Your task to perform on an android device: View the shopping cart on amazon. Search for energizer triple a on amazon, select the first entry, and add it to the cart. Image 0: 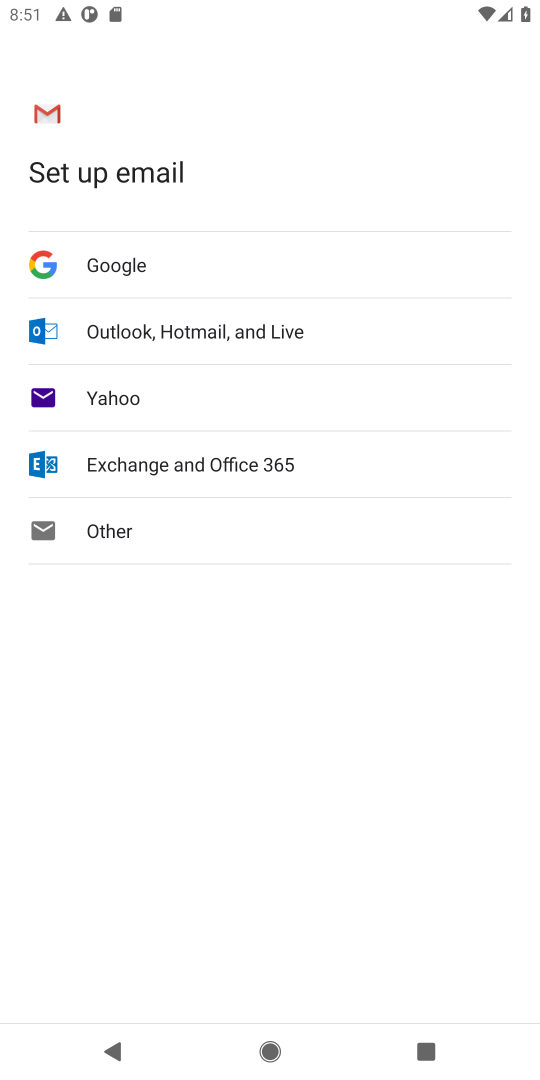
Step 0: press home button
Your task to perform on an android device: View the shopping cart on amazon. Search for energizer triple a on amazon, select the first entry, and add it to the cart. Image 1: 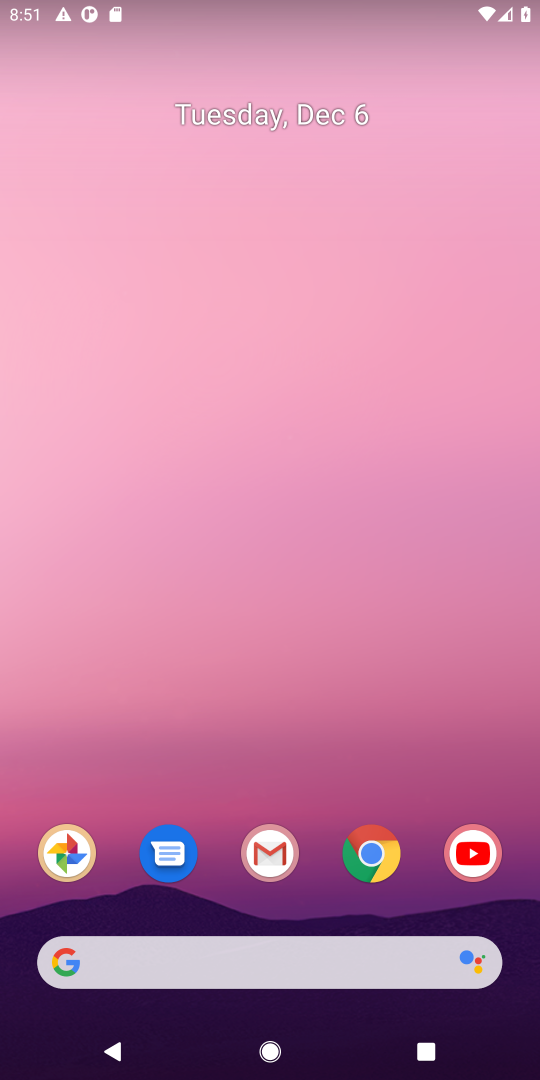
Step 1: drag from (316, 946) to (253, 239)
Your task to perform on an android device: View the shopping cart on amazon. Search for energizer triple a on amazon, select the first entry, and add it to the cart. Image 2: 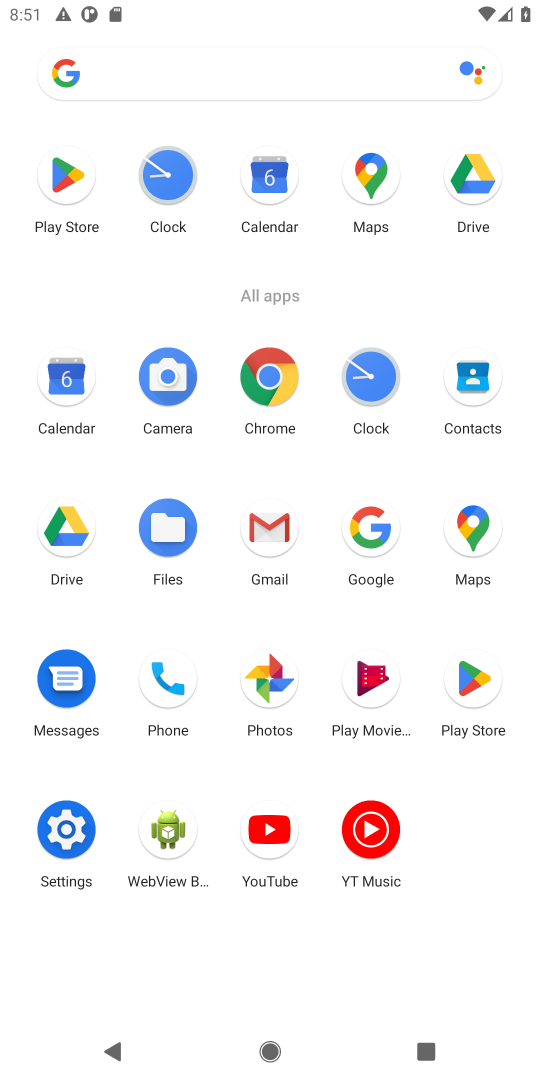
Step 2: click (382, 537)
Your task to perform on an android device: View the shopping cart on amazon. Search for energizer triple a on amazon, select the first entry, and add it to the cart. Image 3: 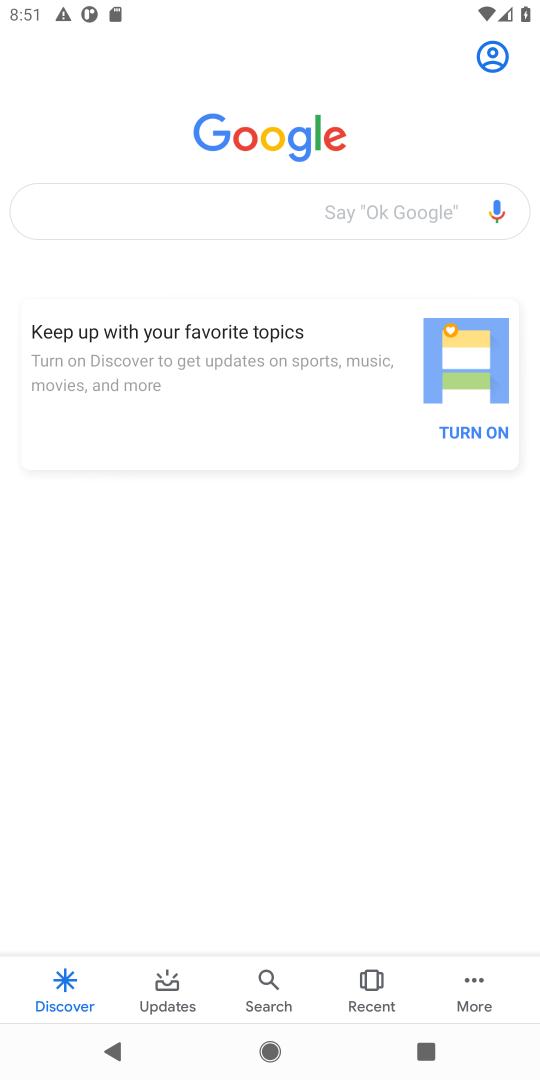
Step 3: click (183, 219)
Your task to perform on an android device: View the shopping cart on amazon. Search for energizer triple a on amazon, select the first entry, and add it to the cart. Image 4: 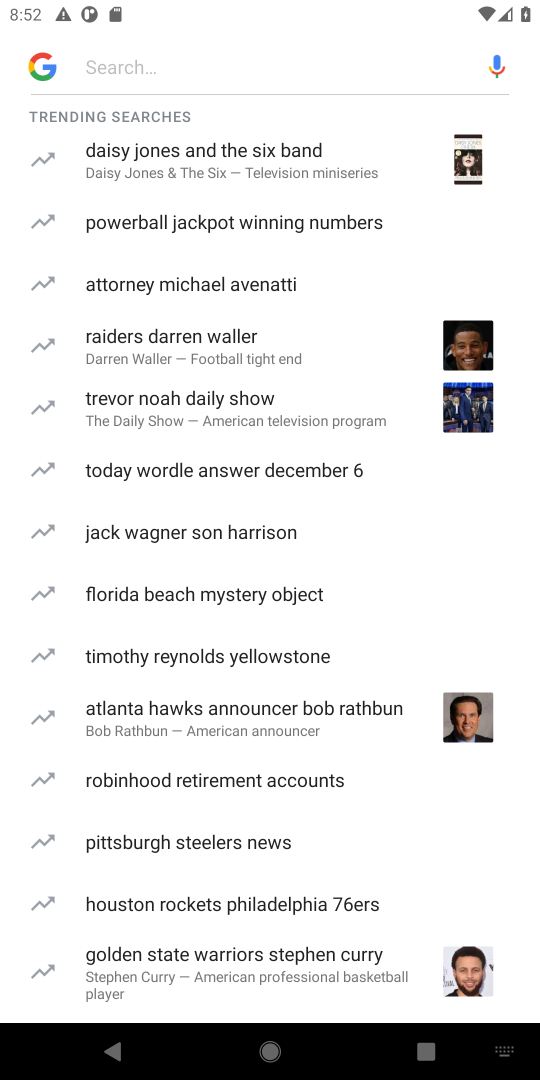
Step 4: type "amazon"
Your task to perform on an android device: View the shopping cart on amazon. Search for energizer triple a on amazon, select the first entry, and add it to the cart. Image 5: 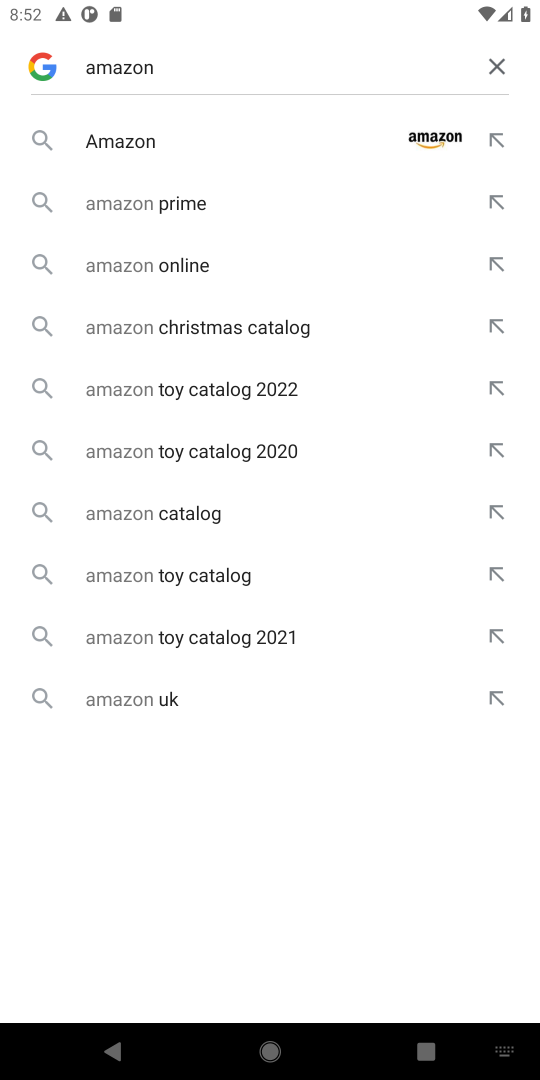
Step 5: click (438, 134)
Your task to perform on an android device: View the shopping cart on amazon. Search for energizer triple a on amazon, select the first entry, and add it to the cart. Image 6: 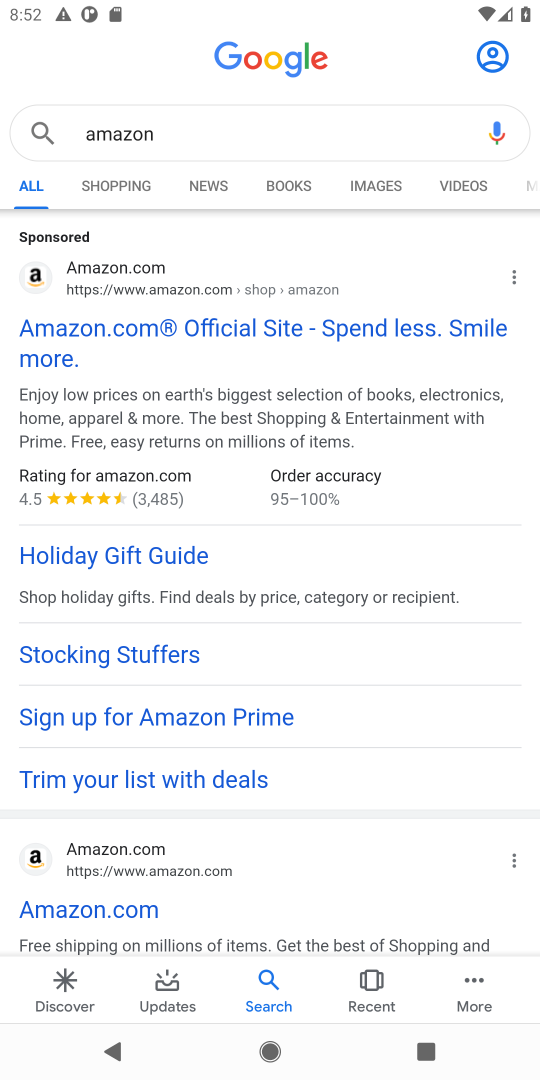
Step 6: click (98, 331)
Your task to perform on an android device: View the shopping cart on amazon. Search for energizer triple a on amazon, select the first entry, and add it to the cart. Image 7: 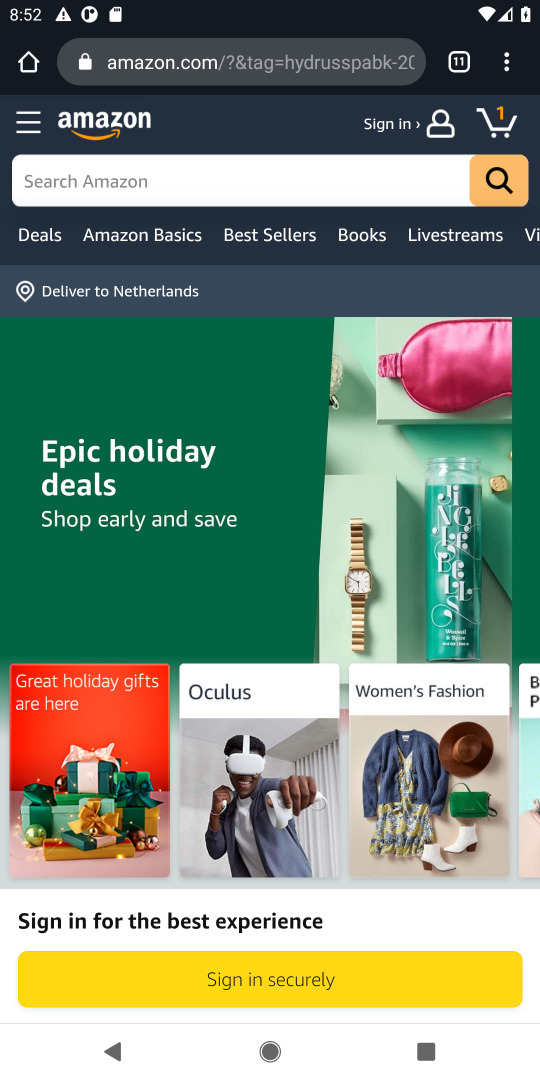
Step 7: click (73, 180)
Your task to perform on an android device: View the shopping cart on amazon. Search for energizer triple a on amazon, select the first entry, and add it to the cart. Image 8: 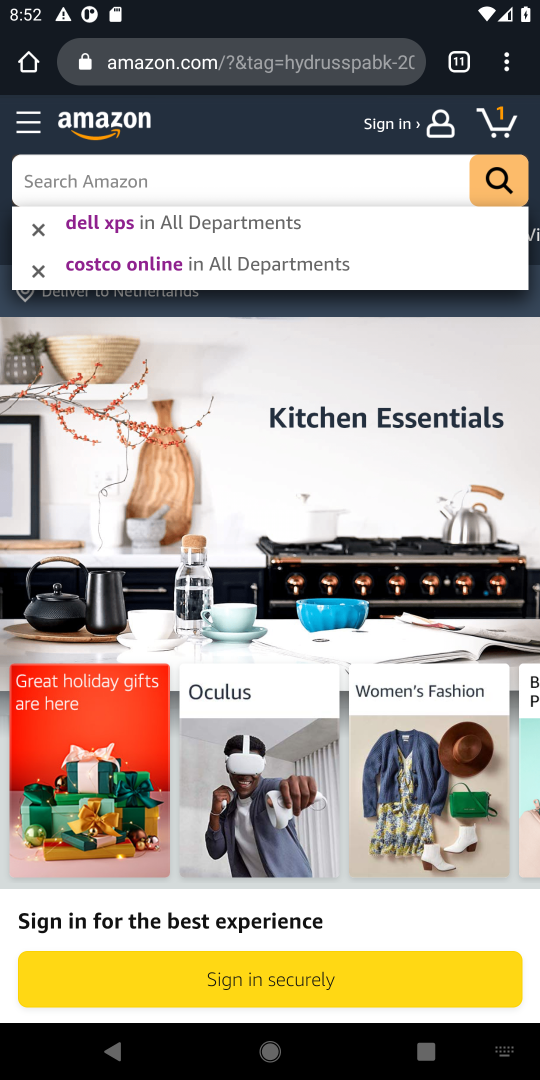
Step 8: type "energizer triple a"
Your task to perform on an android device: View the shopping cart on amazon. Search for energizer triple a on amazon, select the first entry, and add it to the cart. Image 9: 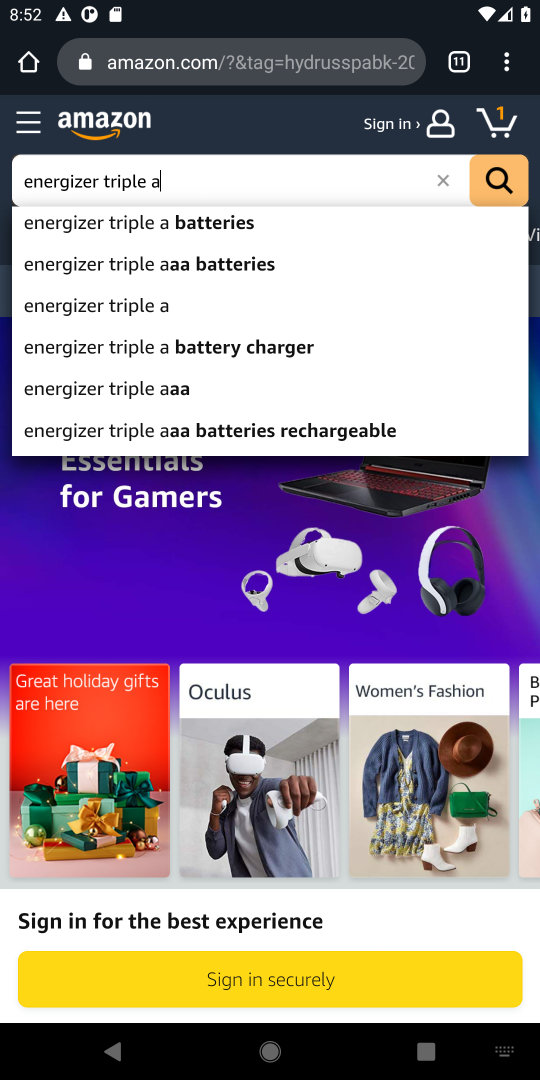
Step 9: click (498, 189)
Your task to perform on an android device: View the shopping cart on amazon. Search for energizer triple a on amazon, select the first entry, and add it to the cart. Image 10: 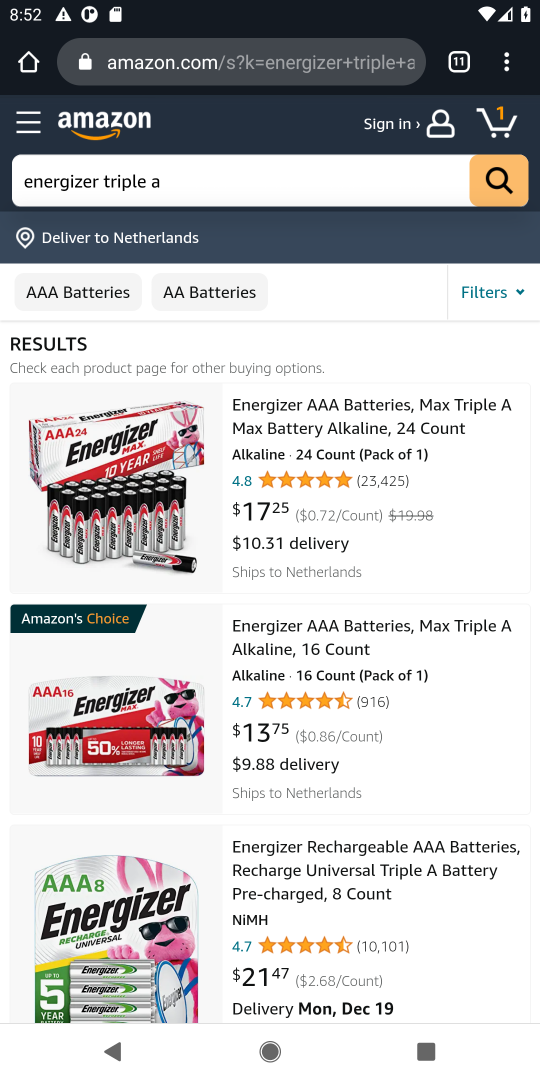
Step 10: click (324, 438)
Your task to perform on an android device: View the shopping cart on amazon. Search for energizer triple a on amazon, select the first entry, and add it to the cart. Image 11: 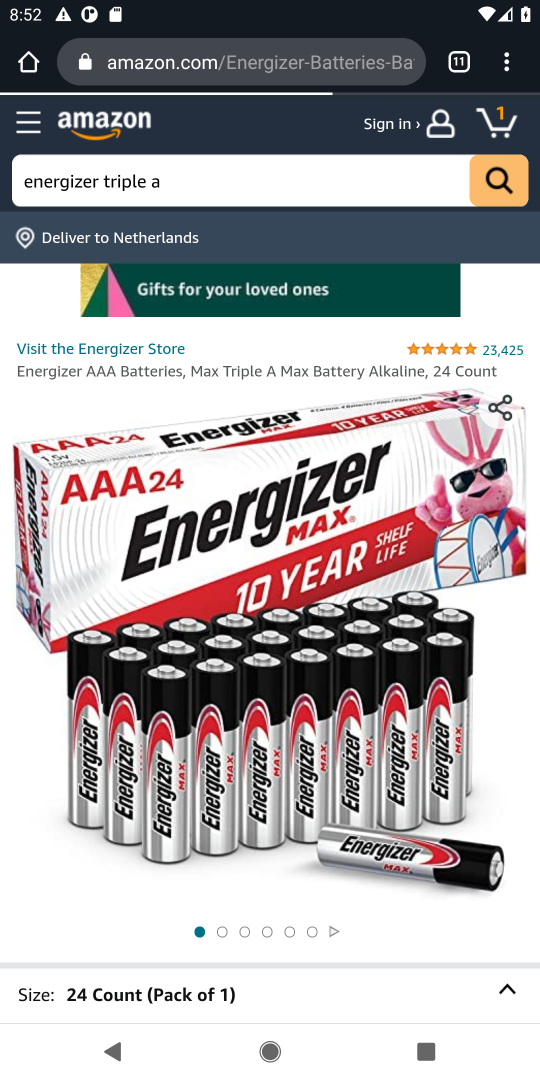
Step 11: drag from (369, 860) to (348, 491)
Your task to perform on an android device: View the shopping cart on amazon. Search for energizer triple a on amazon, select the first entry, and add it to the cart. Image 12: 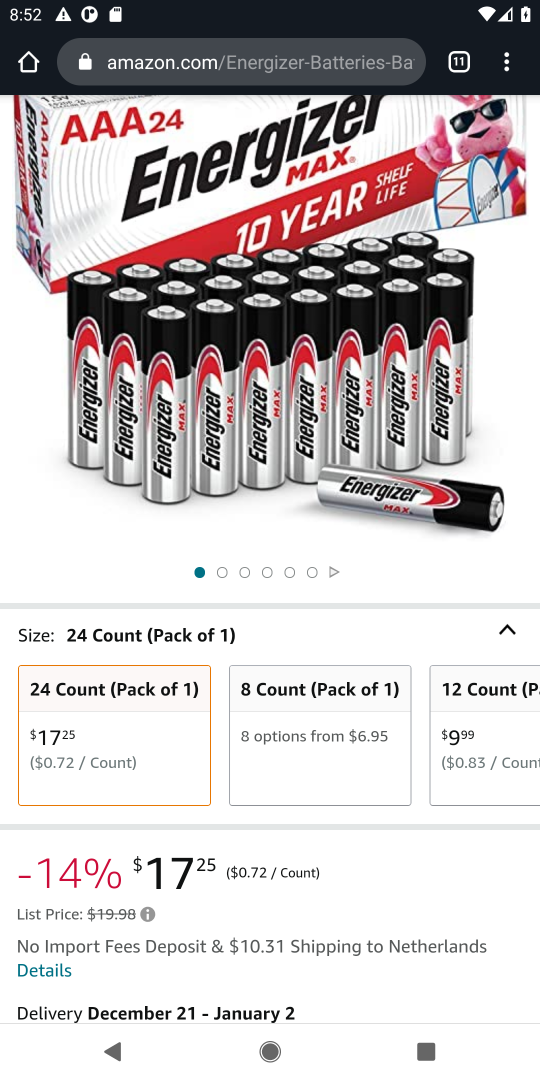
Step 12: drag from (365, 793) to (342, 566)
Your task to perform on an android device: View the shopping cart on amazon. Search for energizer triple a on amazon, select the first entry, and add it to the cart. Image 13: 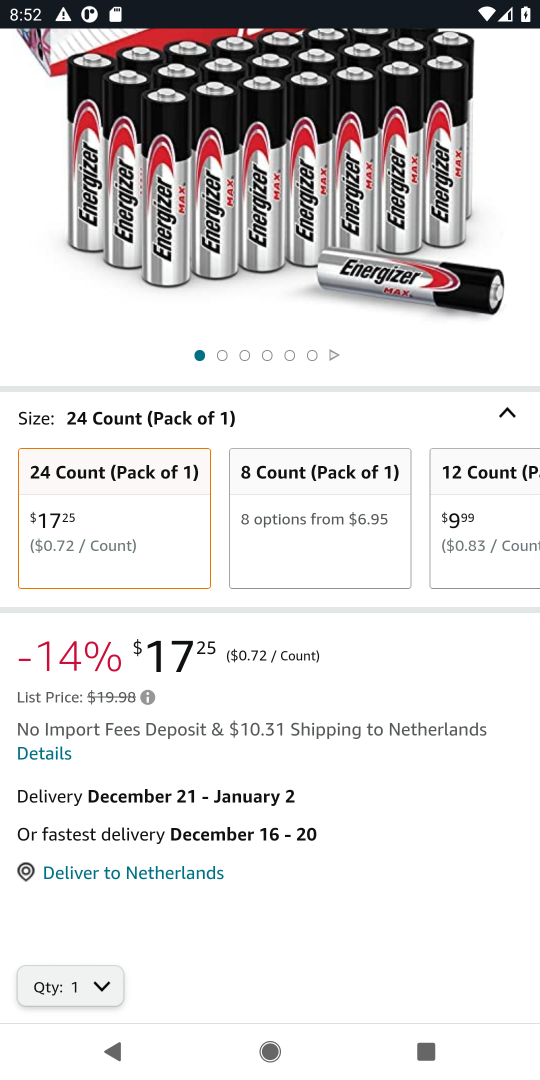
Step 13: drag from (384, 945) to (366, 643)
Your task to perform on an android device: View the shopping cart on amazon. Search for energizer triple a on amazon, select the first entry, and add it to the cart. Image 14: 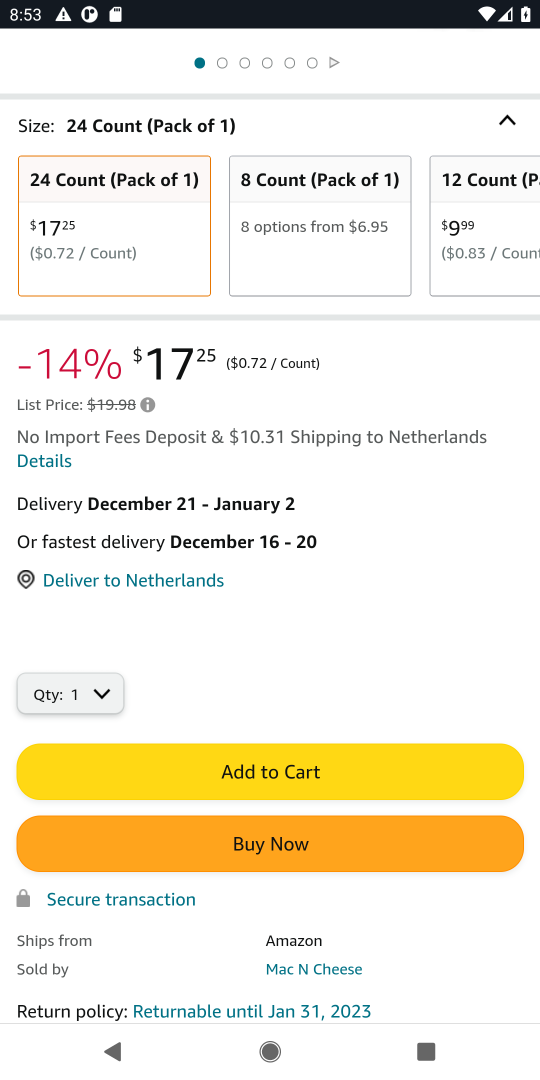
Step 14: click (319, 769)
Your task to perform on an android device: View the shopping cart on amazon. Search for energizer triple a on amazon, select the first entry, and add it to the cart. Image 15: 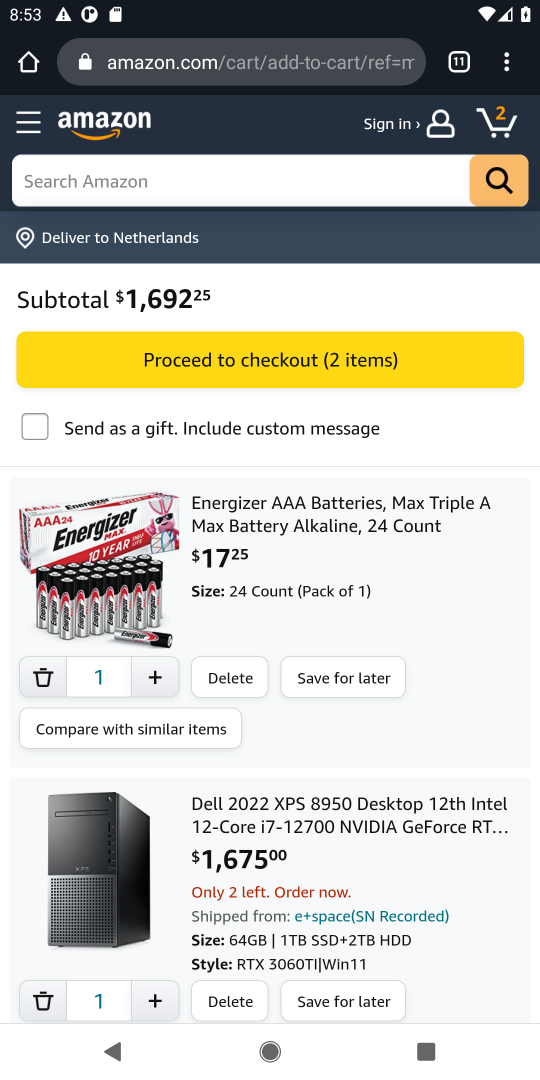
Step 15: task complete